Your task to perform on an android device: turn off priority inbox in the gmail app Image 0: 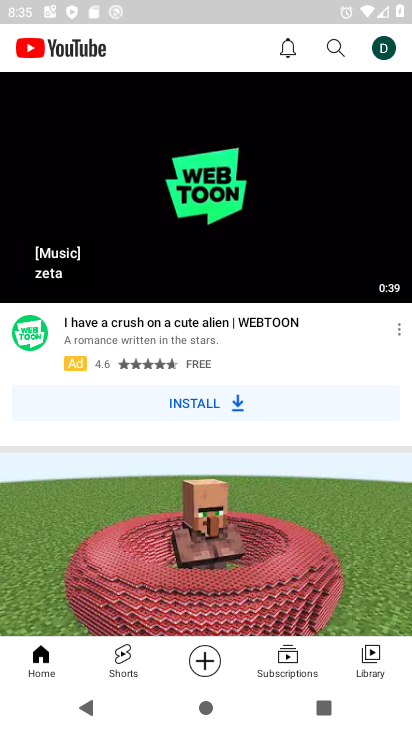
Step 0: press home button
Your task to perform on an android device: turn off priority inbox in the gmail app Image 1: 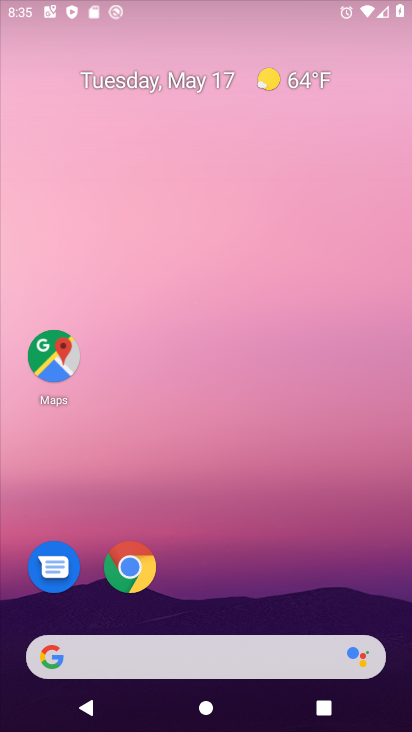
Step 1: drag from (365, 612) to (219, 113)
Your task to perform on an android device: turn off priority inbox in the gmail app Image 2: 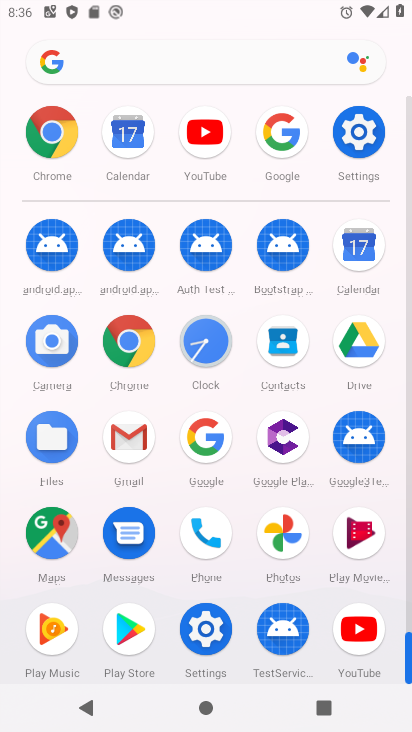
Step 2: click (121, 438)
Your task to perform on an android device: turn off priority inbox in the gmail app Image 3: 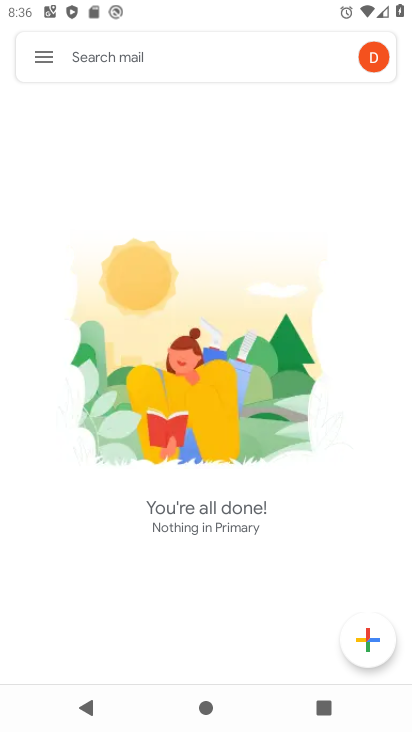
Step 3: click (43, 66)
Your task to perform on an android device: turn off priority inbox in the gmail app Image 4: 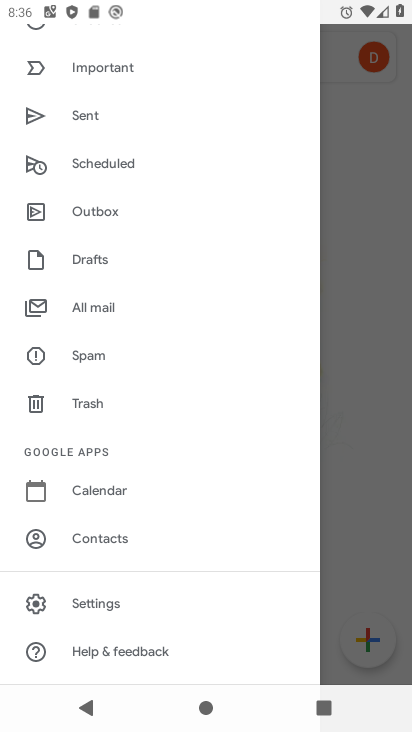
Step 4: click (128, 607)
Your task to perform on an android device: turn off priority inbox in the gmail app Image 5: 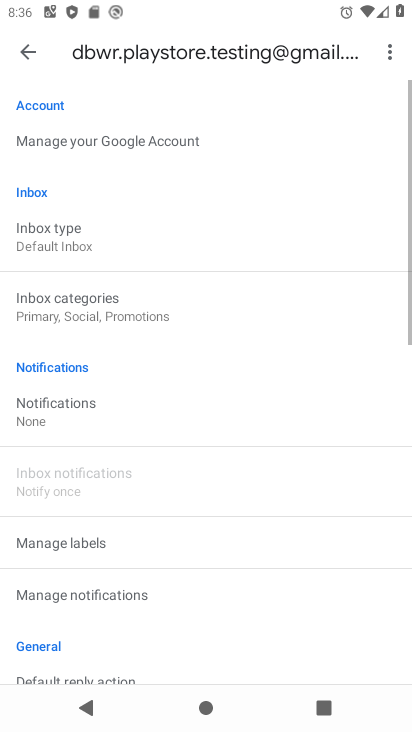
Step 5: click (112, 255)
Your task to perform on an android device: turn off priority inbox in the gmail app Image 6: 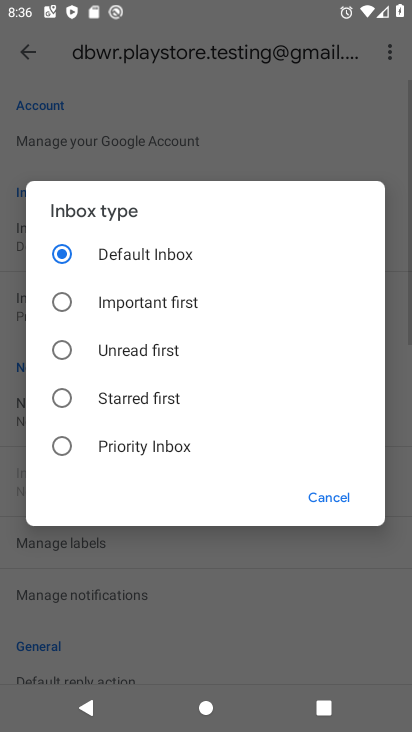
Step 6: task complete